Your task to perform on an android device: What's the weather going to be this weekend? Image 0: 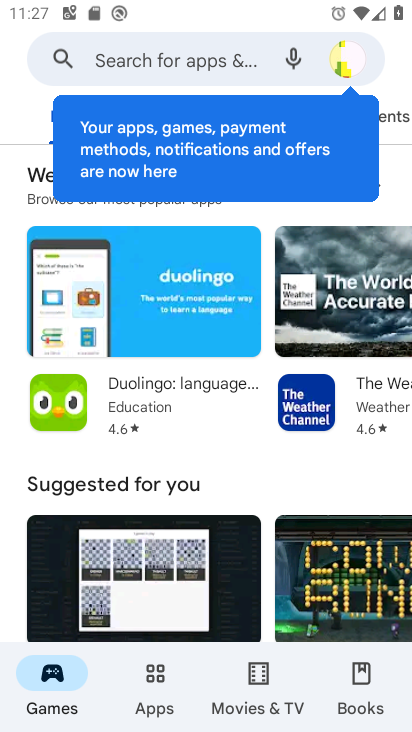
Step 0: press home button
Your task to perform on an android device: What's the weather going to be this weekend? Image 1: 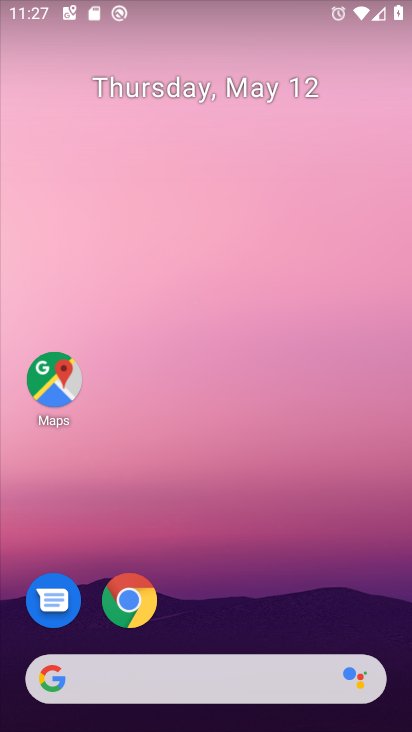
Step 1: click (127, 586)
Your task to perform on an android device: What's the weather going to be this weekend? Image 2: 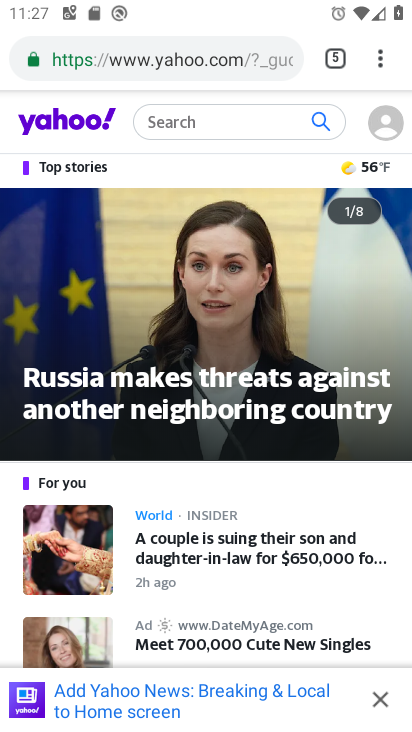
Step 2: click (340, 63)
Your task to perform on an android device: What's the weather going to be this weekend? Image 3: 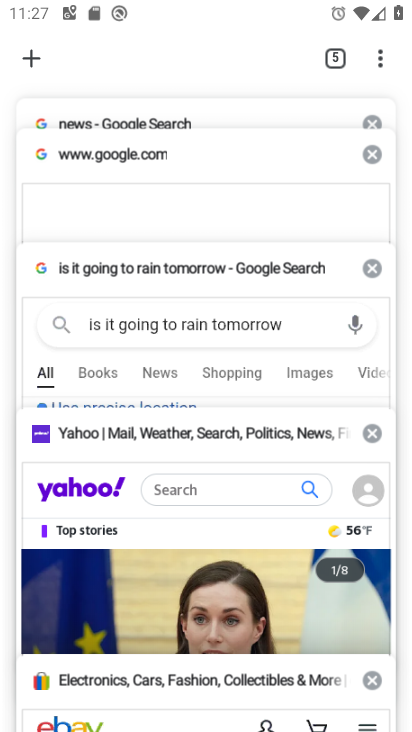
Step 3: click (34, 64)
Your task to perform on an android device: What's the weather going to be this weekend? Image 4: 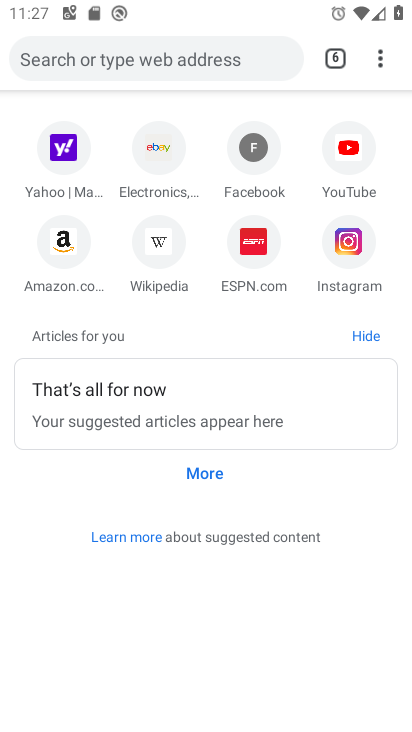
Step 4: click (157, 60)
Your task to perform on an android device: What's the weather going to be this weekend? Image 5: 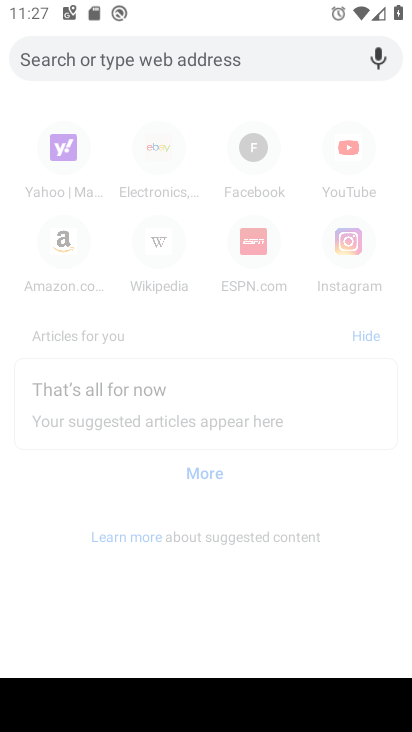
Step 5: type "what's the weather going to be this weekend?"
Your task to perform on an android device: What's the weather going to be this weekend? Image 6: 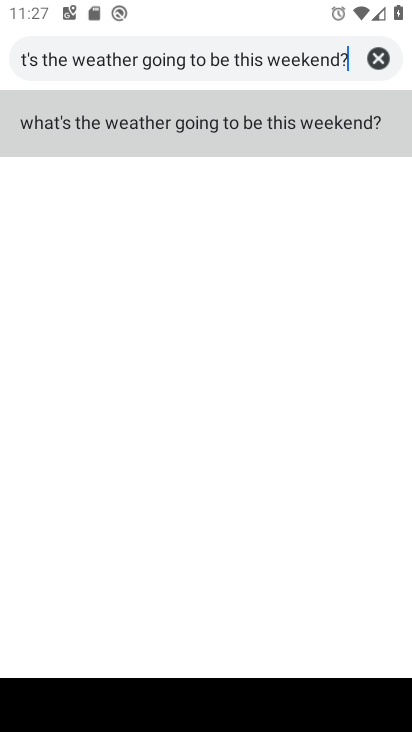
Step 6: click (183, 120)
Your task to perform on an android device: What's the weather going to be this weekend? Image 7: 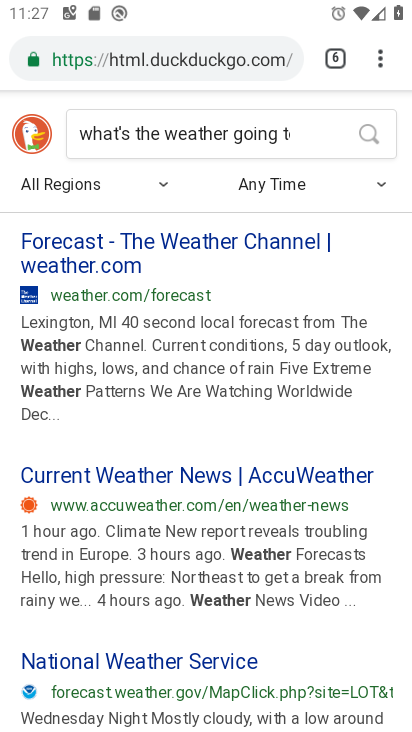
Step 7: click (123, 257)
Your task to perform on an android device: What's the weather going to be this weekend? Image 8: 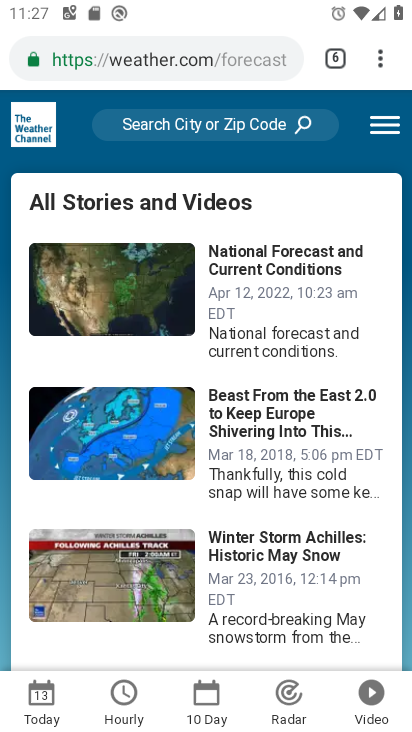
Step 8: drag from (175, 589) to (188, 227)
Your task to perform on an android device: What's the weather going to be this weekend? Image 9: 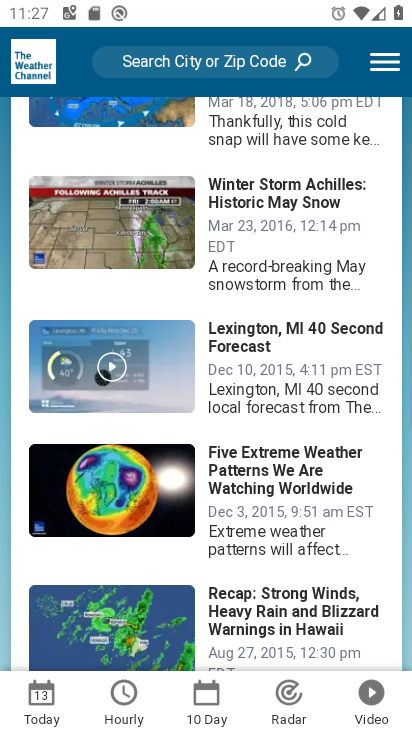
Step 9: drag from (186, 614) to (210, 183)
Your task to perform on an android device: What's the weather going to be this weekend? Image 10: 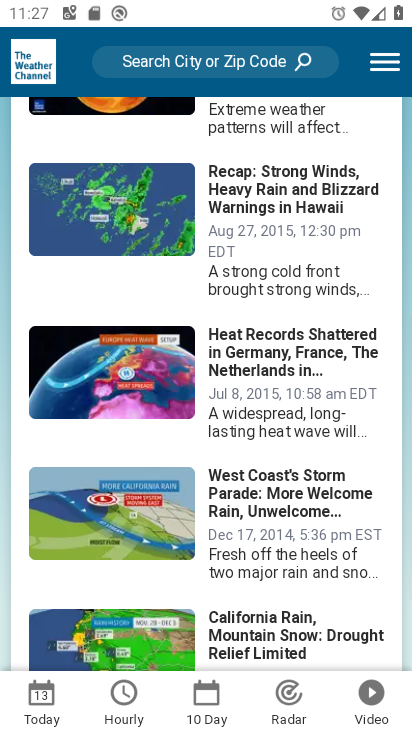
Step 10: drag from (199, 570) to (227, 120)
Your task to perform on an android device: What's the weather going to be this weekend? Image 11: 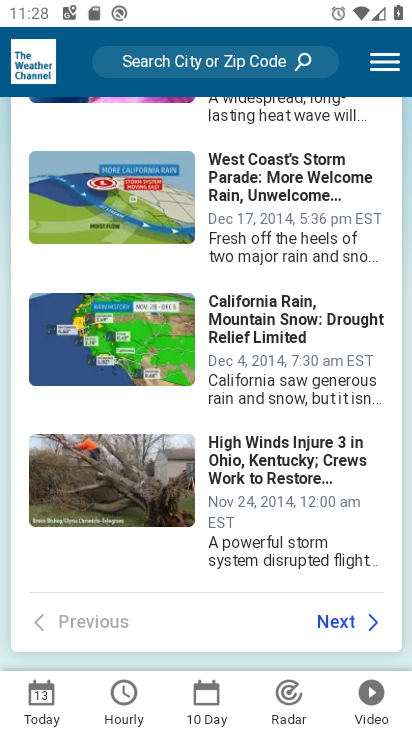
Step 11: drag from (163, 579) to (189, 223)
Your task to perform on an android device: What's the weather going to be this weekend? Image 12: 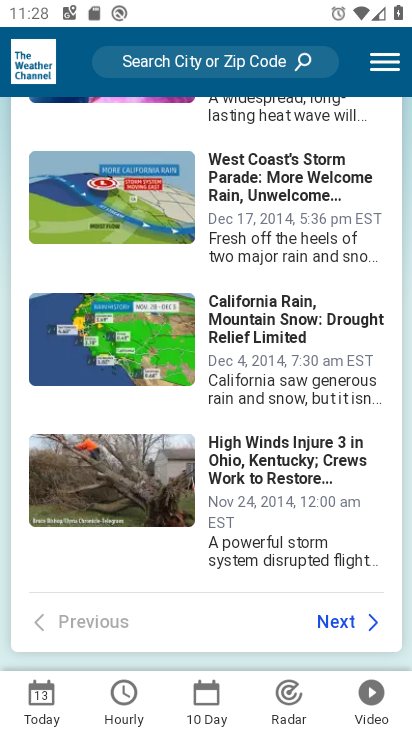
Step 12: click (44, 697)
Your task to perform on an android device: What's the weather going to be this weekend? Image 13: 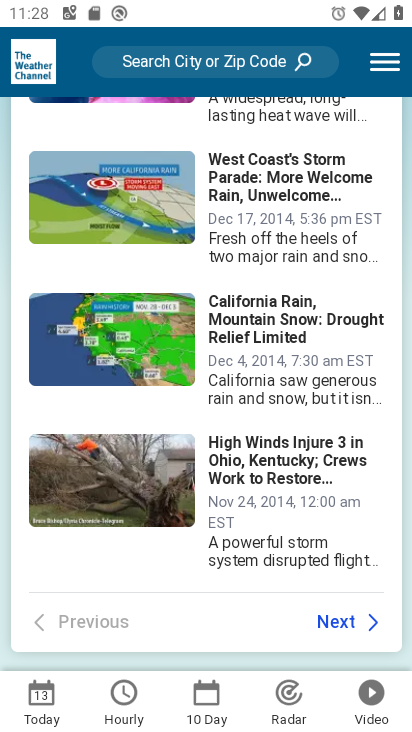
Step 13: click (112, 691)
Your task to perform on an android device: What's the weather going to be this weekend? Image 14: 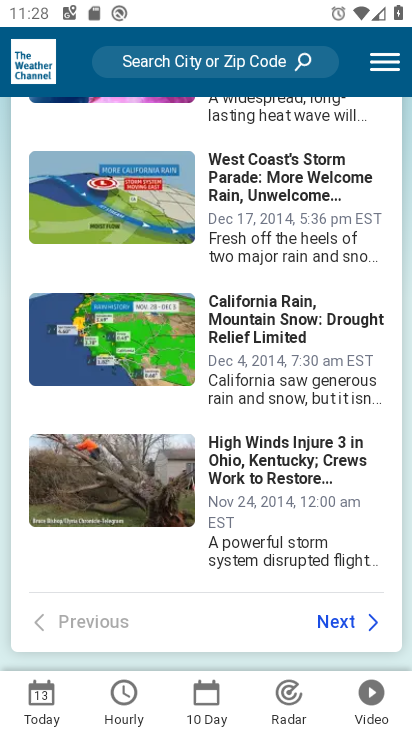
Step 14: click (196, 684)
Your task to perform on an android device: What's the weather going to be this weekend? Image 15: 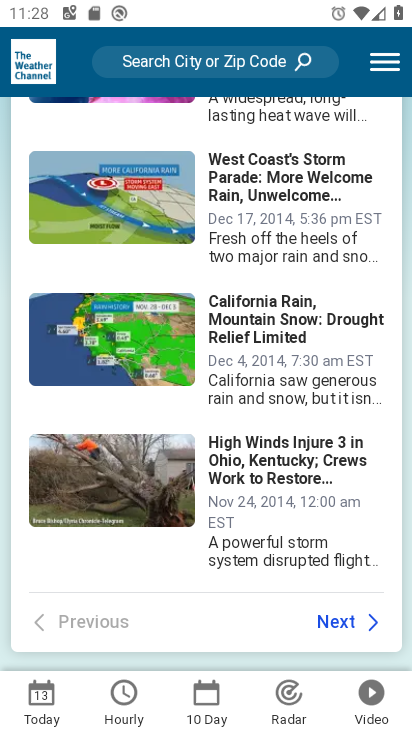
Step 15: drag from (159, 339) to (189, 710)
Your task to perform on an android device: What's the weather going to be this weekend? Image 16: 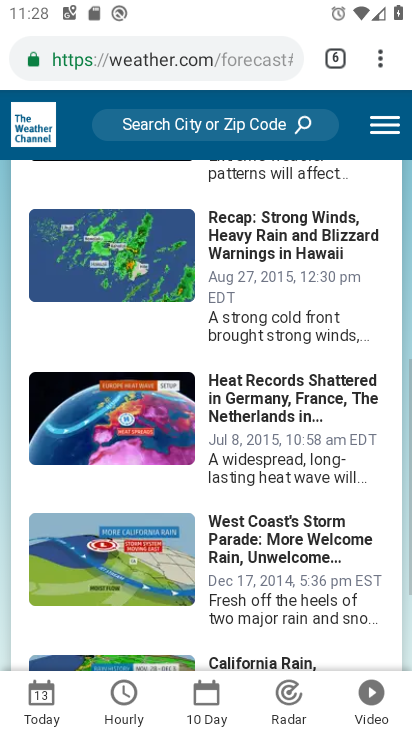
Step 16: drag from (197, 384) to (198, 598)
Your task to perform on an android device: What's the weather going to be this weekend? Image 17: 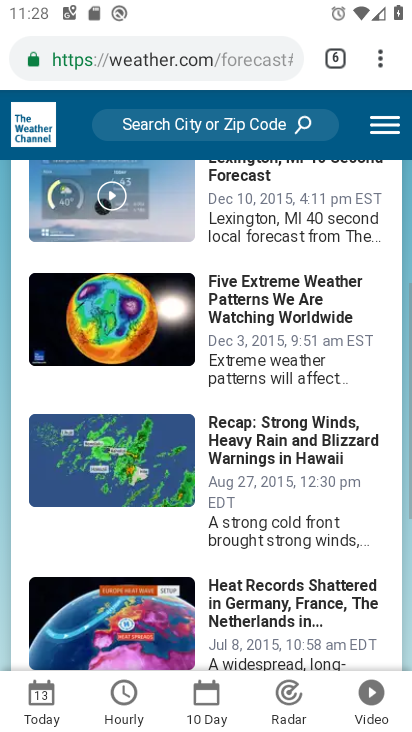
Step 17: click (213, 705)
Your task to perform on an android device: What's the weather going to be this weekend? Image 18: 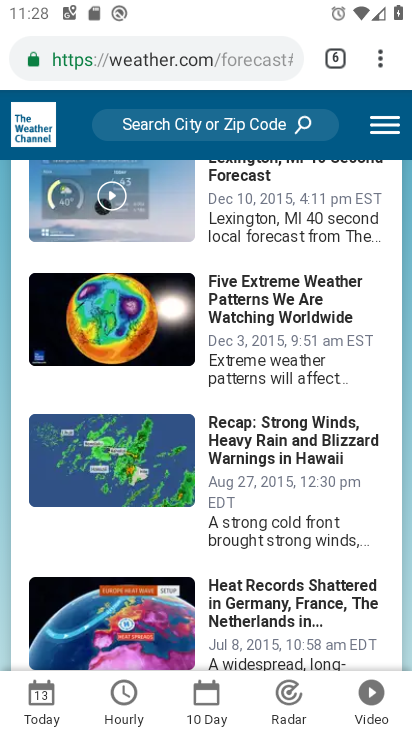
Step 18: press back button
Your task to perform on an android device: What's the weather going to be this weekend? Image 19: 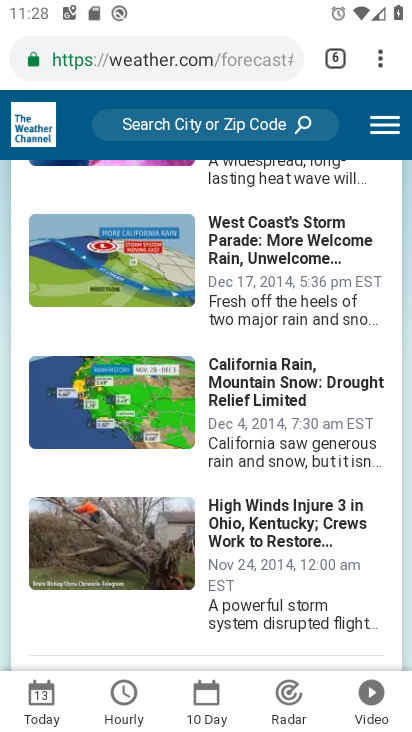
Step 19: press back button
Your task to perform on an android device: What's the weather going to be this weekend? Image 20: 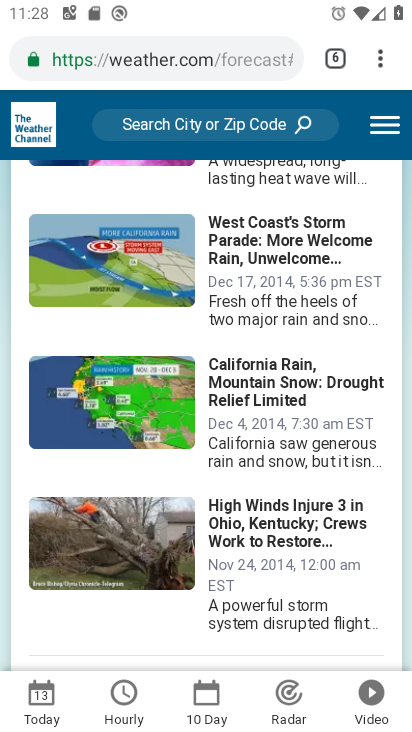
Step 20: press back button
Your task to perform on an android device: What's the weather going to be this weekend? Image 21: 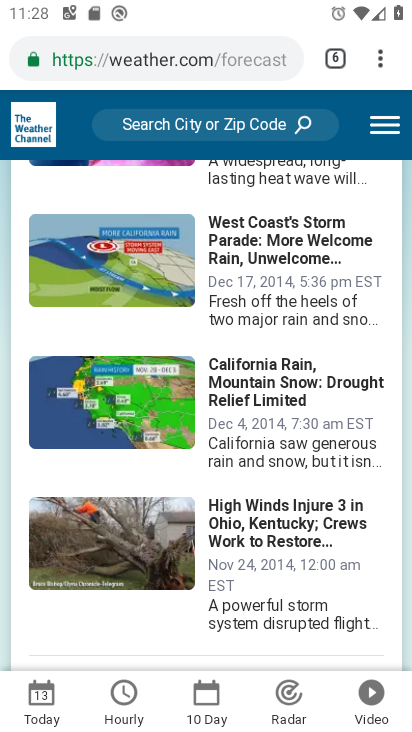
Step 21: press back button
Your task to perform on an android device: What's the weather going to be this weekend? Image 22: 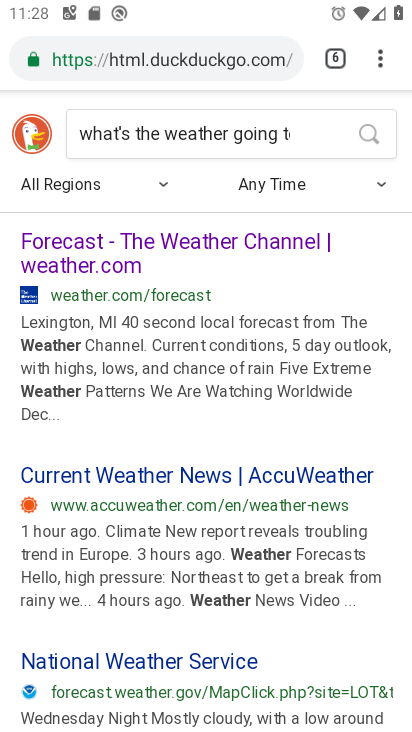
Step 22: click (76, 476)
Your task to perform on an android device: What's the weather going to be this weekend? Image 23: 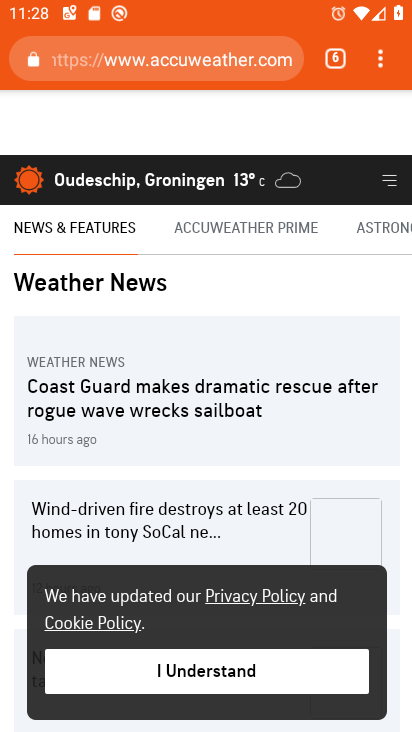
Step 23: drag from (244, 517) to (238, 215)
Your task to perform on an android device: What's the weather going to be this weekend? Image 24: 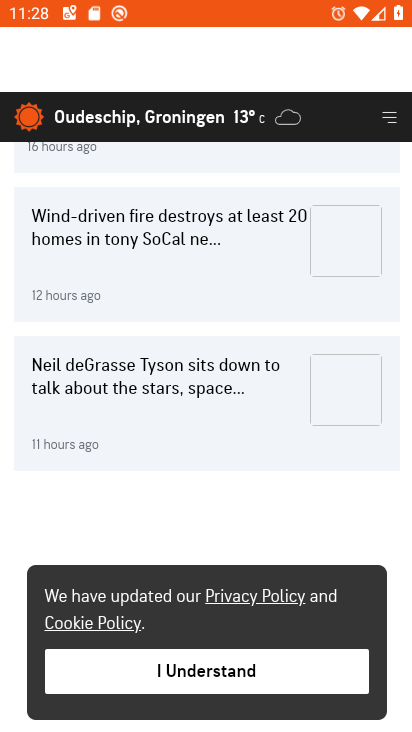
Step 24: drag from (244, 526) to (246, 298)
Your task to perform on an android device: What's the weather going to be this weekend? Image 25: 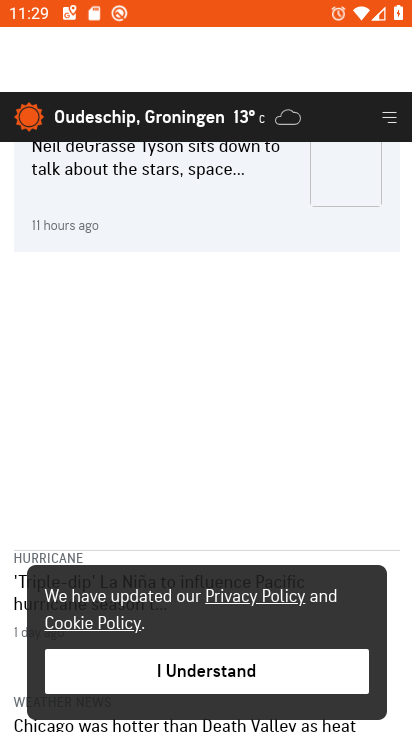
Step 25: press back button
Your task to perform on an android device: What's the weather going to be this weekend? Image 26: 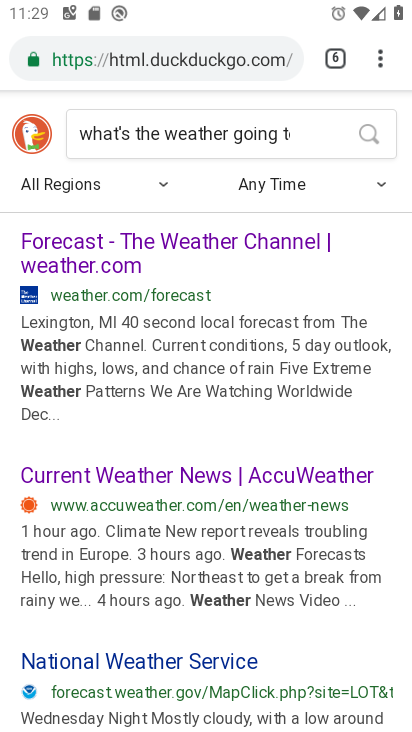
Step 26: drag from (226, 648) to (190, 661)
Your task to perform on an android device: What's the weather going to be this weekend? Image 27: 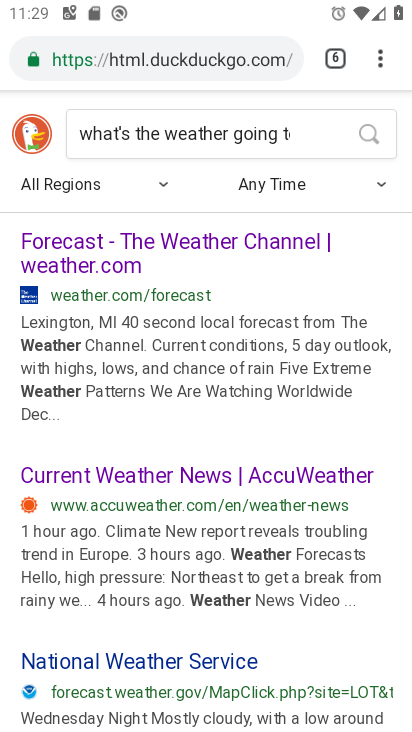
Step 27: click (102, 259)
Your task to perform on an android device: What's the weather going to be this weekend? Image 28: 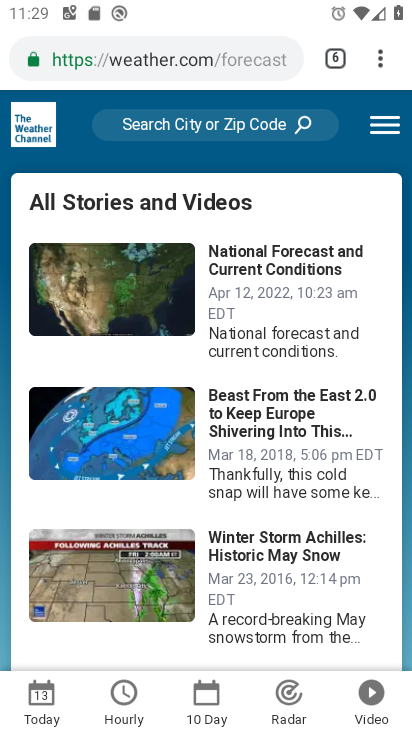
Step 28: click (197, 699)
Your task to perform on an android device: What's the weather going to be this weekend? Image 29: 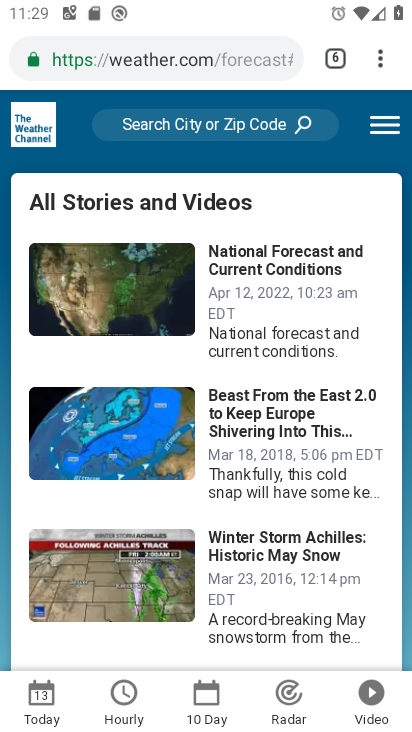
Step 29: click (265, 124)
Your task to perform on an android device: What's the weather going to be this weekend? Image 30: 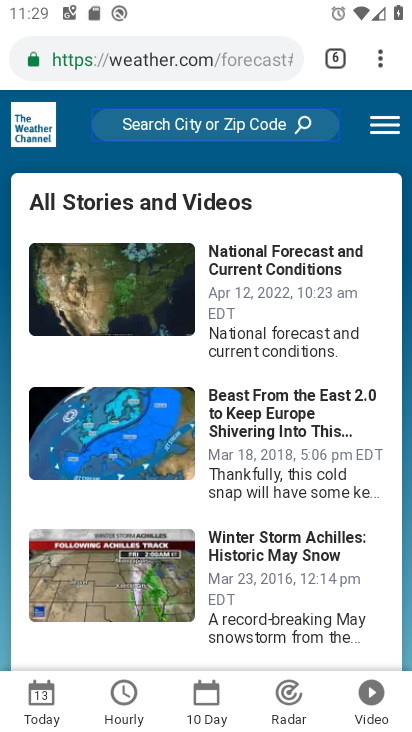
Step 30: click (376, 126)
Your task to perform on an android device: What's the weather going to be this weekend? Image 31: 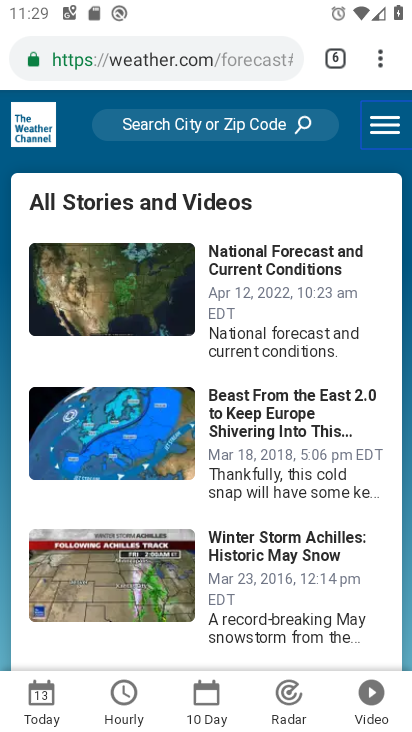
Step 31: task complete